Your task to perform on an android device: change notifications settings Image 0: 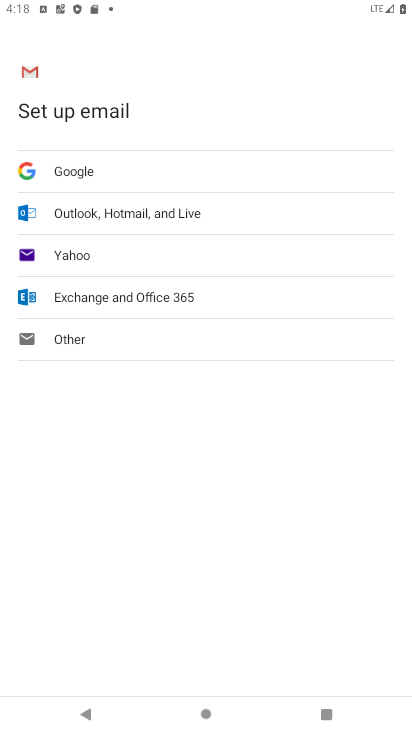
Step 0: press home button
Your task to perform on an android device: change notifications settings Image 1: 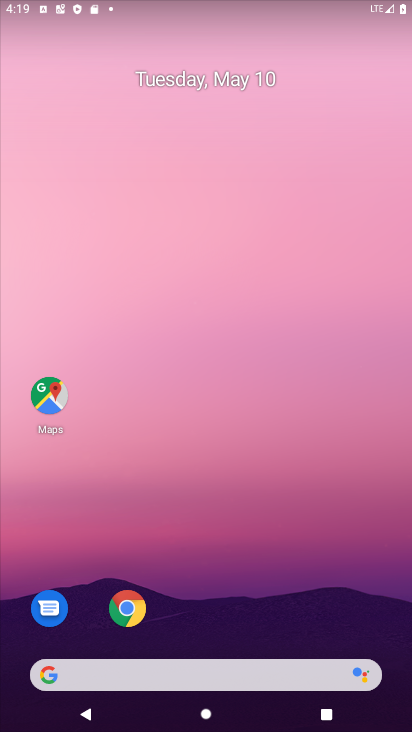
Step 1: drag from (354, 629) to (253, 83)
Your task to perform on an android device: change notifications settings Image 2: 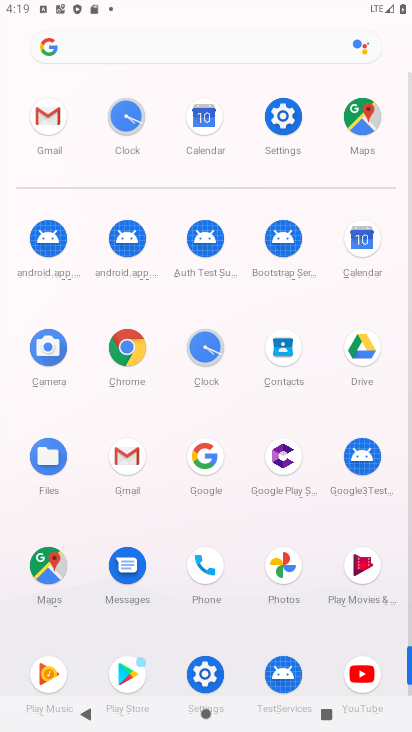
Step 2: click (206, 674)
Your task to perform on an android device: change notifications settings Image 3: 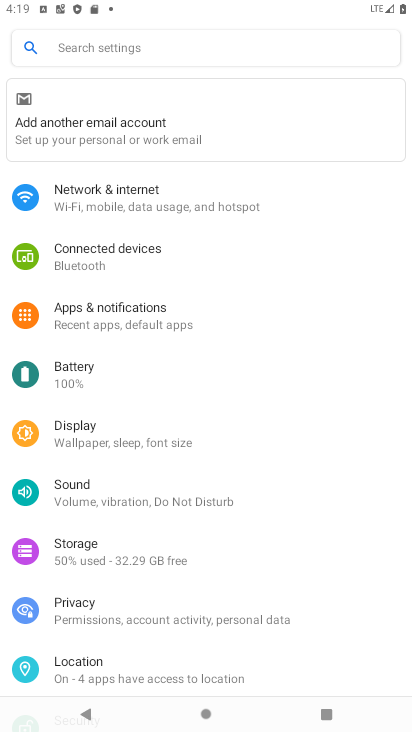
Step 3: click (90, 310)
Your task to perform on an android device: change notifications settings Image 4: 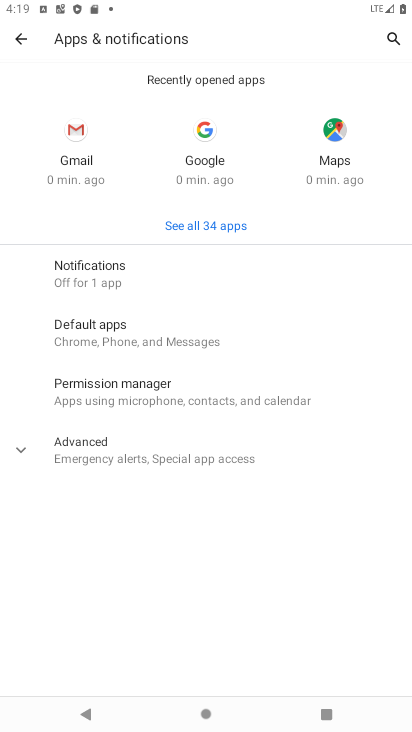
Step 4: click (81, 265)
Your task to perform on an android device: change notifications settings Image 5: 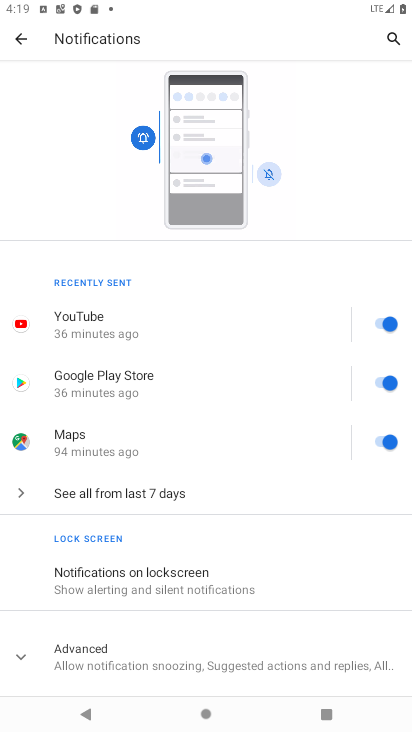
Step 5: click (23, 653)
Your task to perform on an android device: change notifications settings Image 6: 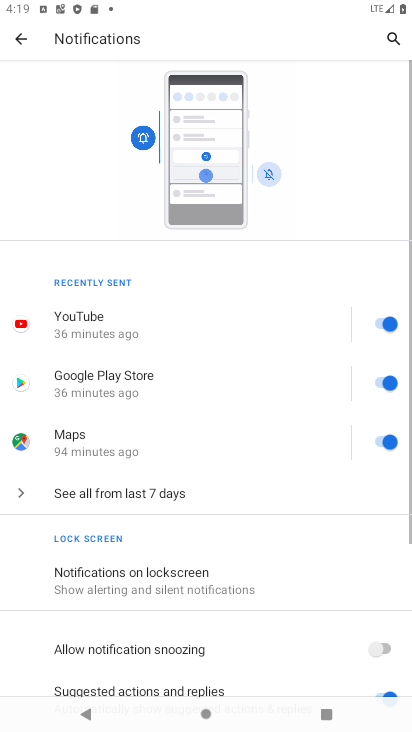
Step 6: task complete